Your task to perform on an android device: move an email to a new category in the gmail app Image 0: 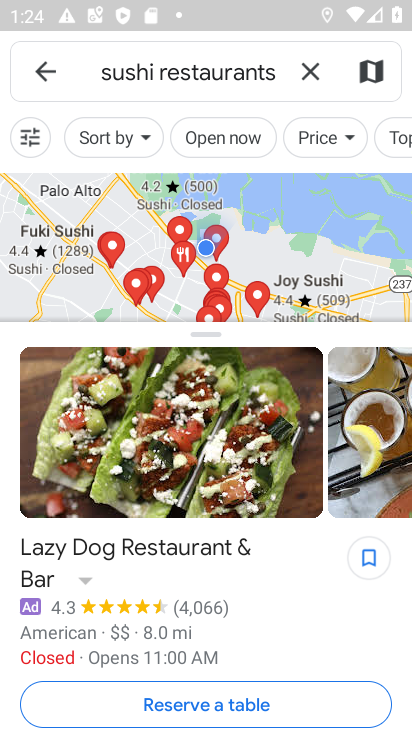
Step 0: press home button
Your task to perform on an android device: move an email to a new category in the gmail app Image 1: 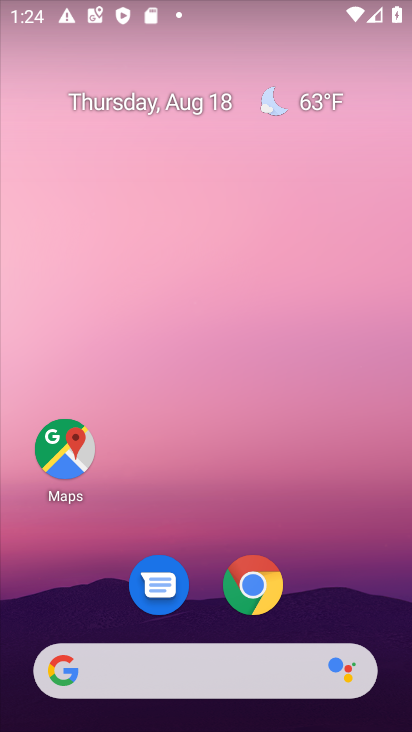
Step 1: drag from (316, 574) to (303, 0)
Your task to perform on an android device: move an email to a new category in the gmail app Image 2: 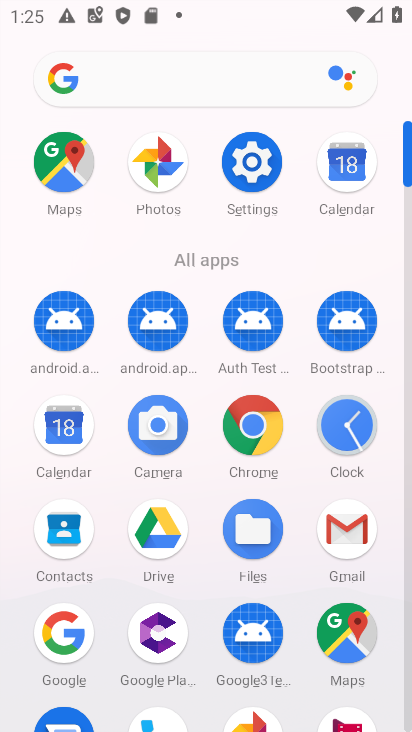
Step 2: click (331, 522)
Your task to perform on an android device: move an email to a new category in the gmail app Image 3: 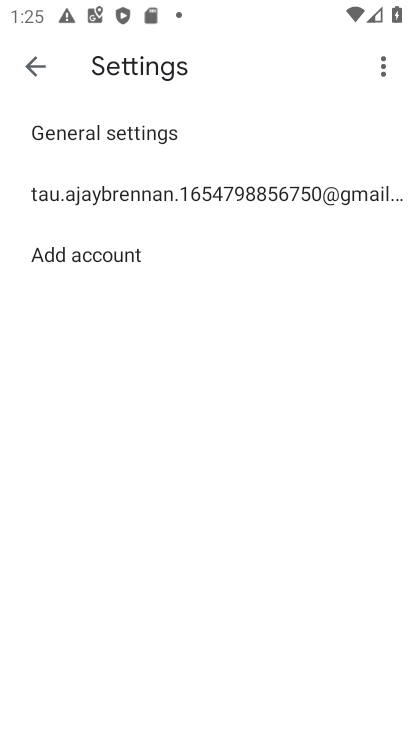
Step 3: click (37, 61)
Your task to perform on an android device: move an email to a new category in the gmail app Image 4: 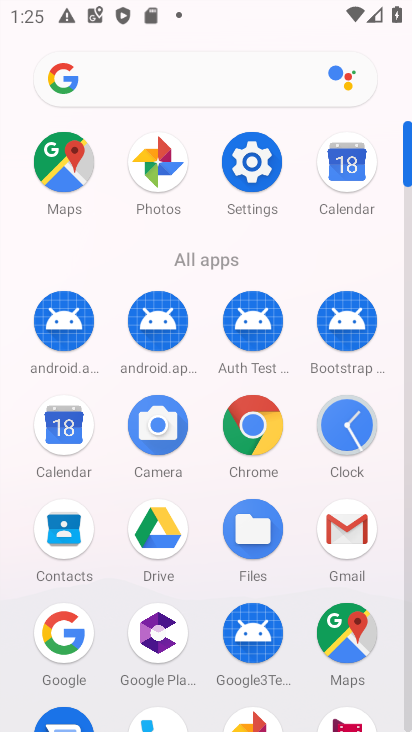
Step 4: click (355, 537)
Your task to perform on an android device: move an email to a new category in the gmail app Image 5: 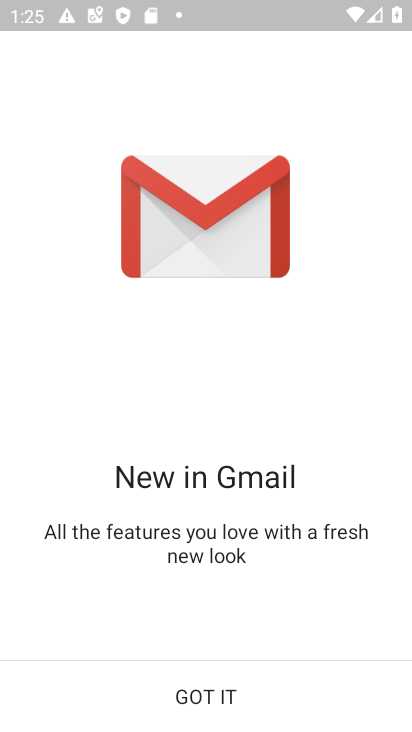
Step 5: click (280, 689)
Your task to perform on an android device: move an email to a new category in the gmail app Image 6: 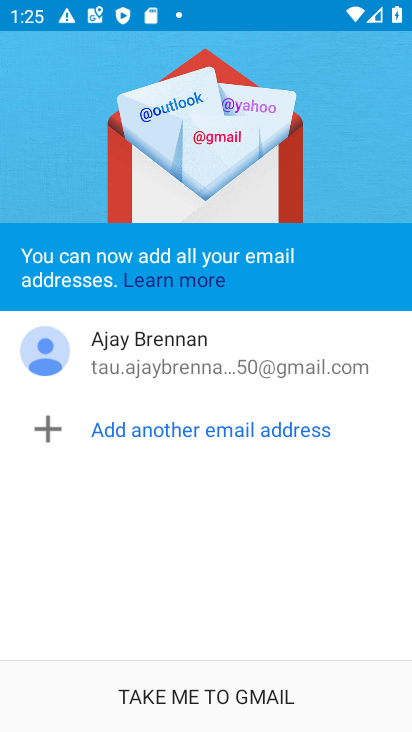
Step 6: click (286, 695)
Your task to perform on an android device: move an email to a new category in the gmail app Image 7: 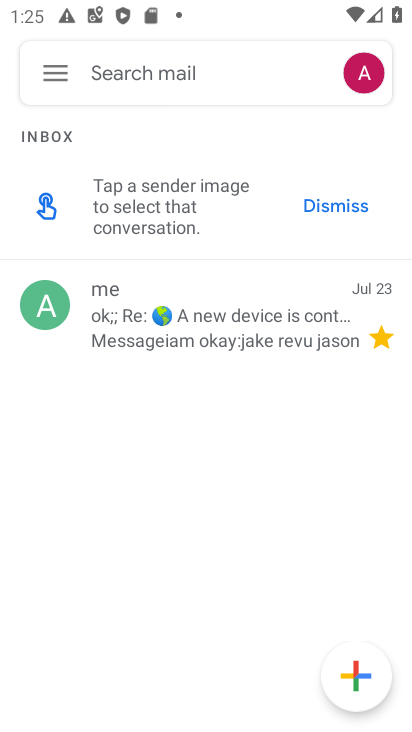
Step 7: click (261, 323)
Your task to perform on an android device: move an email to a new category in the gmail app Image 8: 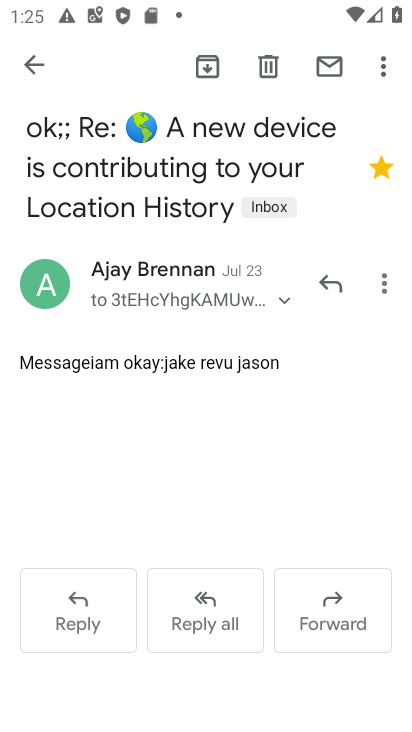
Step 8: click (379, 55)
Your task to perform on an android device: move an email to a new category in the gmail app Image 9: 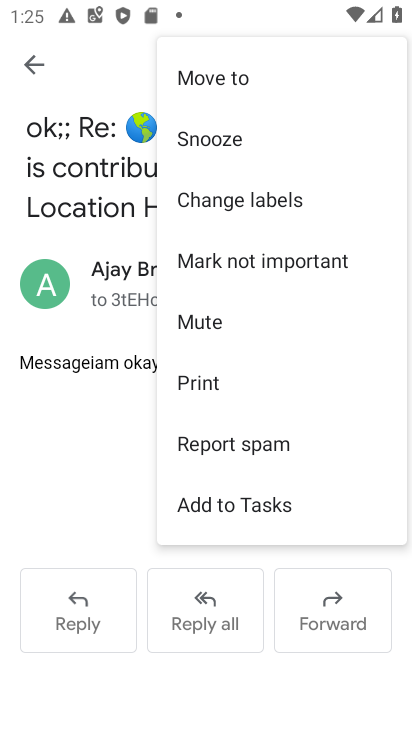
Step 9: click (235, 75)
Your task to perform on an android device: move an email to a new category in the gmail app Image 10: 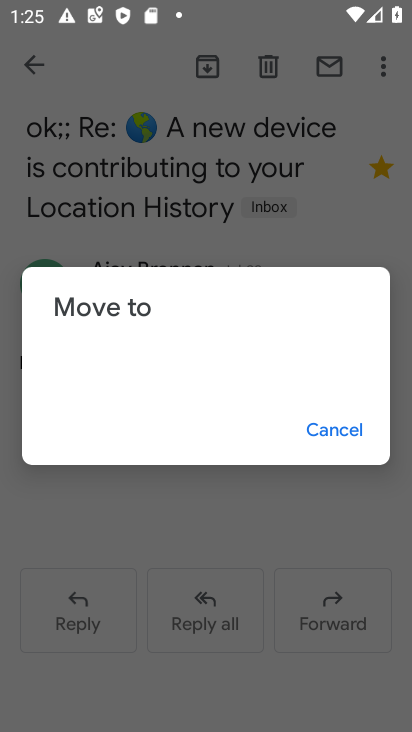
Step 10: click (342, 429)
Your task to perform on an android device: move an email to a new category in the gmail app Image 11: 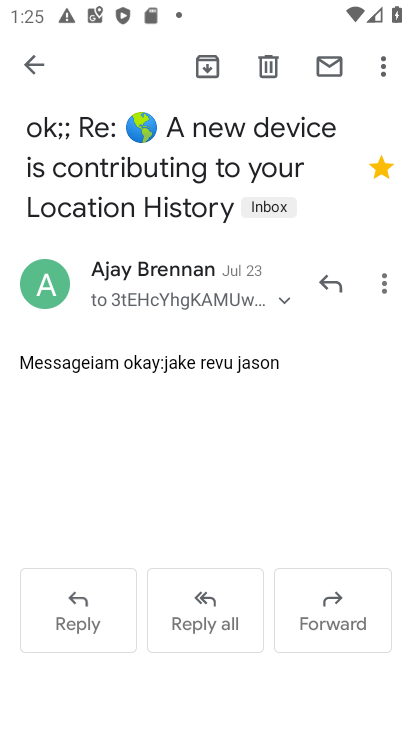
Step 11: click (385, 71)
Your task to perform on an android device: move an email to a new category in the gmail app Image 12: 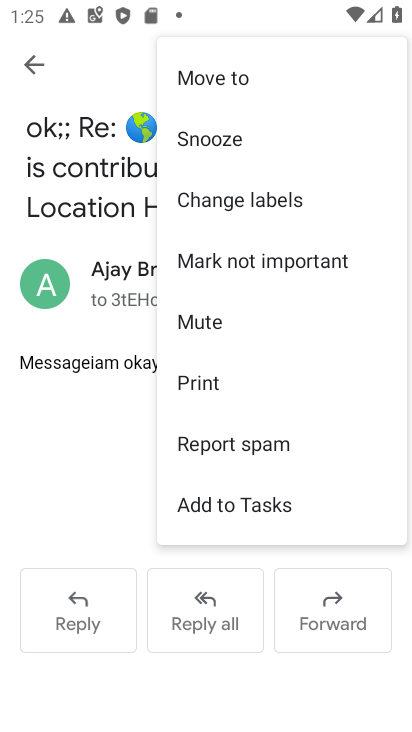
Step 12: click (266, 257)
Your task to perform on an android device: move an email to a new category in the gmail app Image 13: 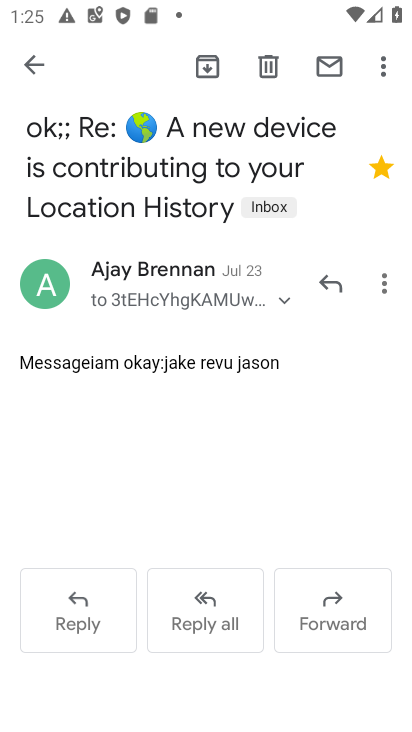
Step 13: task complete